Your task to perform on an android device: delete a single message in the gmail app Image 0: 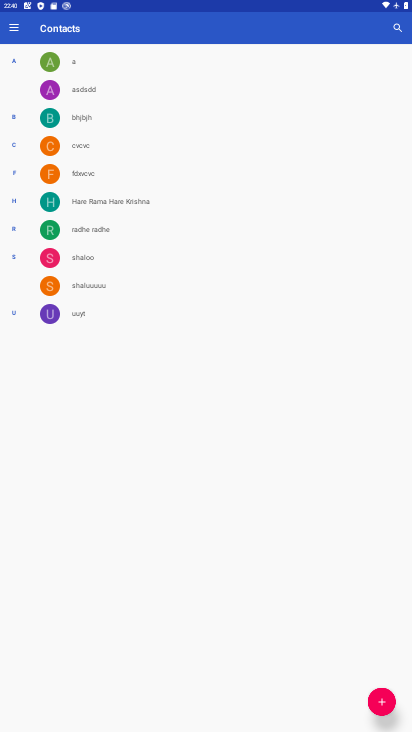
Step 0: press home button
Your task to perform on an android device: delete a single message in the gmail app Image 1: 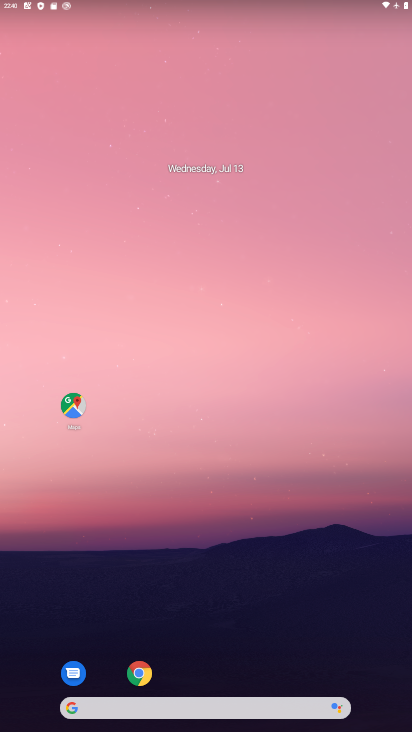
Step 1: drag from (255, 598) to (197, 134)
Your task to perform on an android device: delete a single message in the gmail app Image 2: 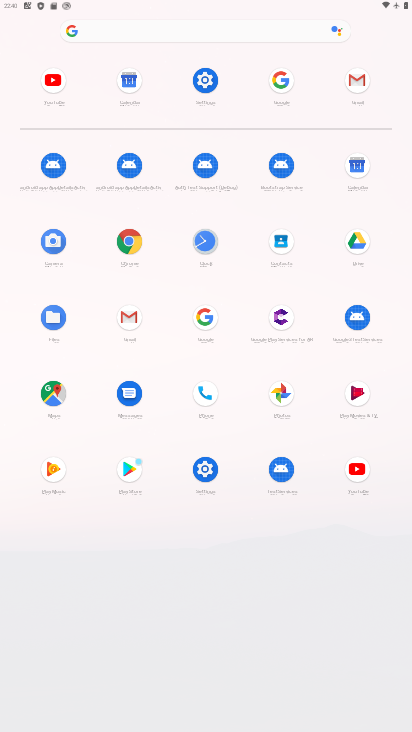
Step 2: click (346, 94)
Your task to perform on an android device: delete a single message in the gmail app Image 3: 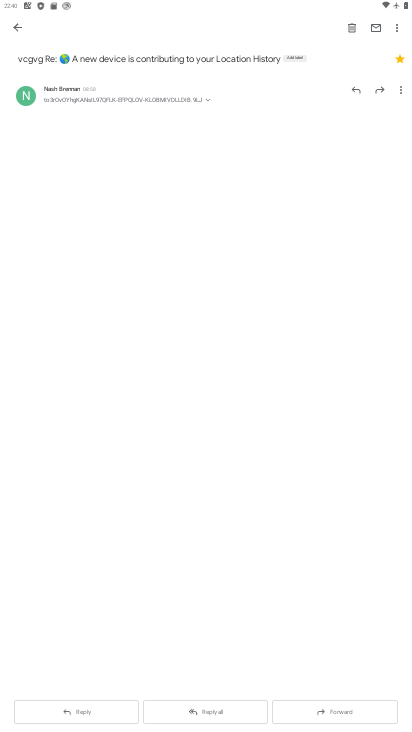
Step 3: click (102, 94)
Your task to perform on an android device: delete a single message in the gmail app Image 4: 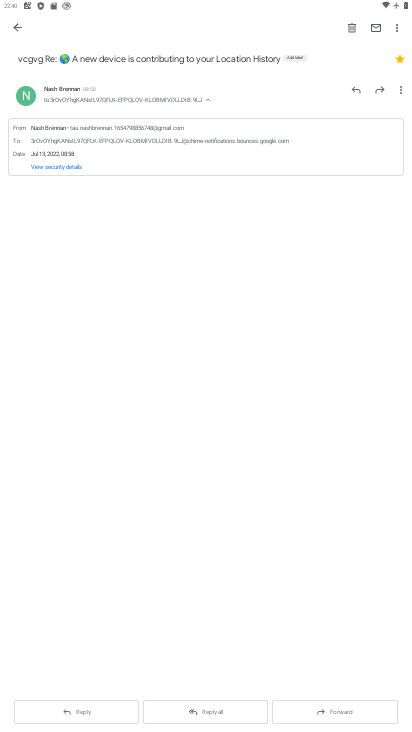
Step 4: click (347, 25)
Your task to perform on an android device: delete a single message in the gmail app Image 5: 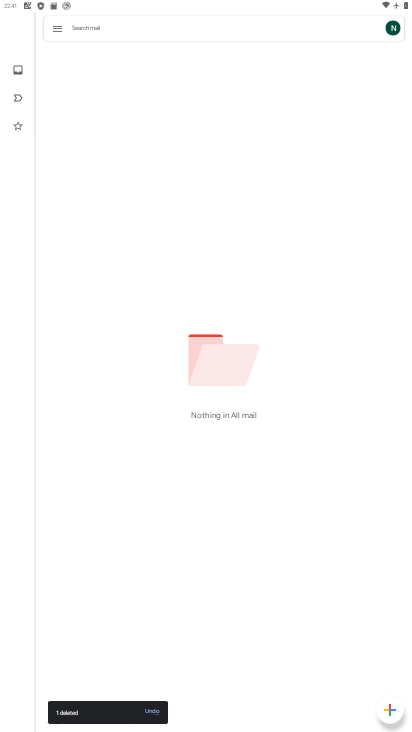
Step 5: task complete